Your task to perform on an android device: turn notification dots on Image 0: 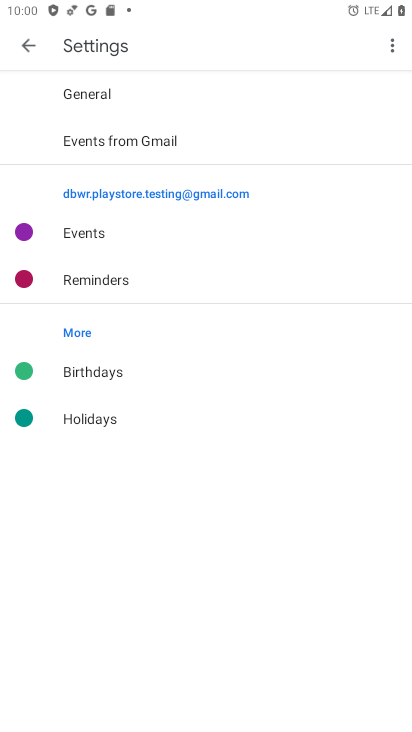
Step 0: drag from (186, 647) to (176, 533)
Your task to perform on an android device: turn notification dots on Image 1: 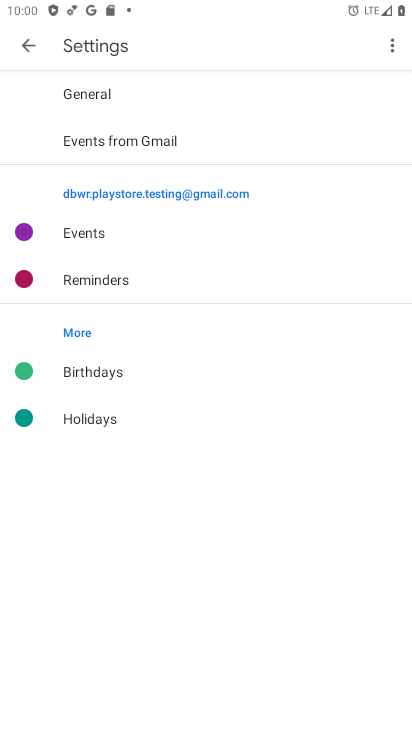
Step 1: press home button
Your task to perform on an android device: turn notification dots on Image 2: 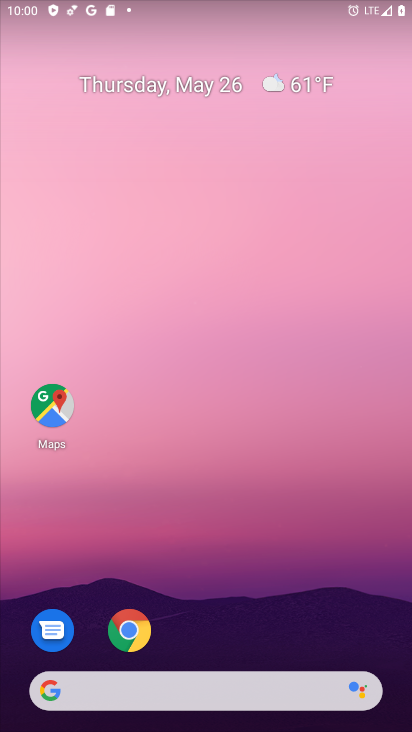
Step 2: drag from (209, 651) to (191, 79)
Your task to perform on an android device: turn notification dots on Image 3: 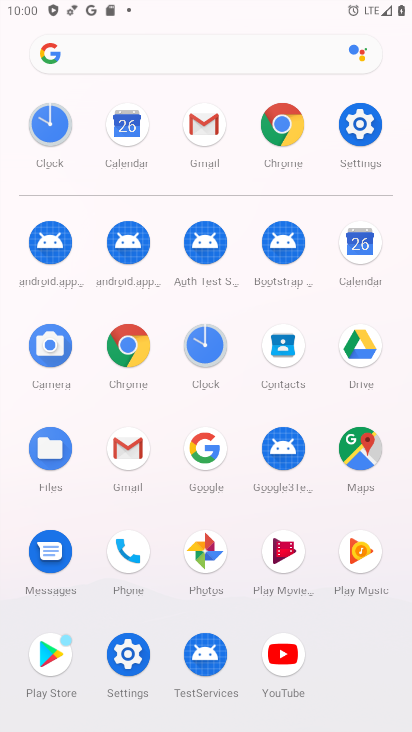
Step 3: click (360, 113)
Your task to perform on an android device: turn notification dots on Image 4: 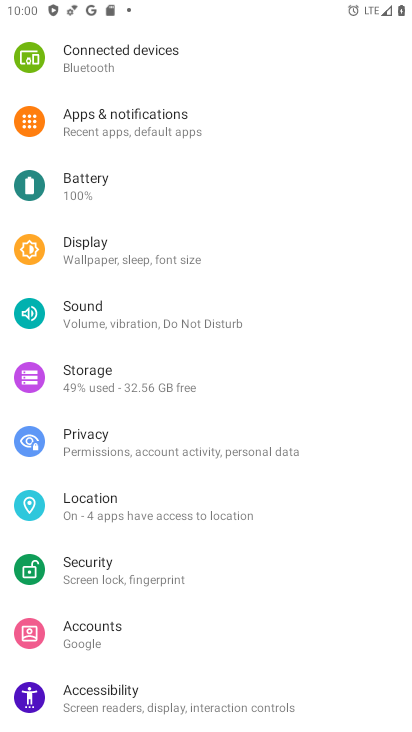
Step 4: click (217, 130)
Your task to perform on an android device: turn notification dots on Image 5: 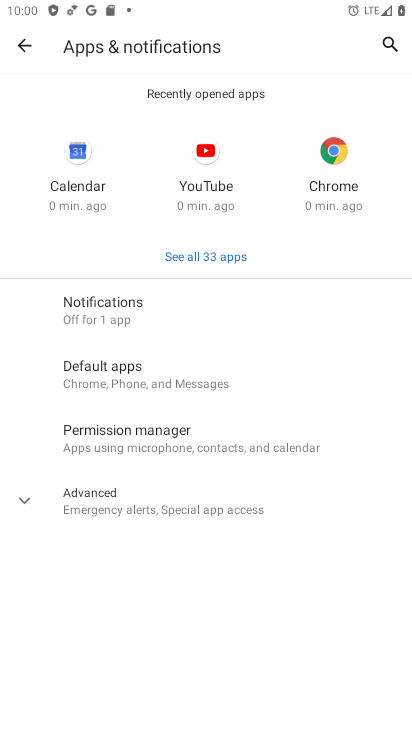
Step 5: click (130, 293)
Your task to perform on an android device: turn notification dots on Image 6: 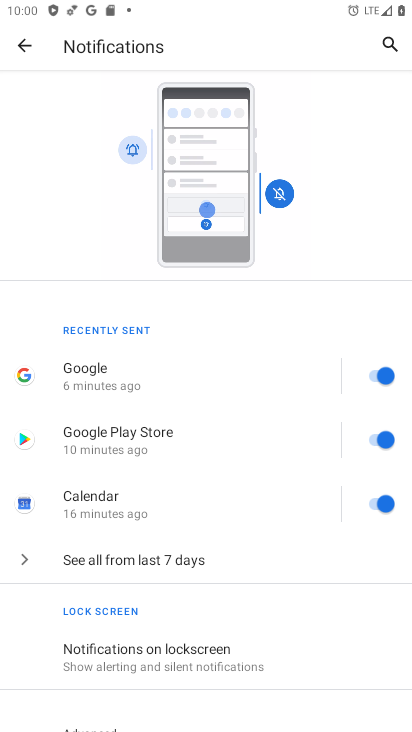
Step 6: drag from (116, 677) to (92, 467)
Your task to perform on an android device: turn notification dots on Image 7: 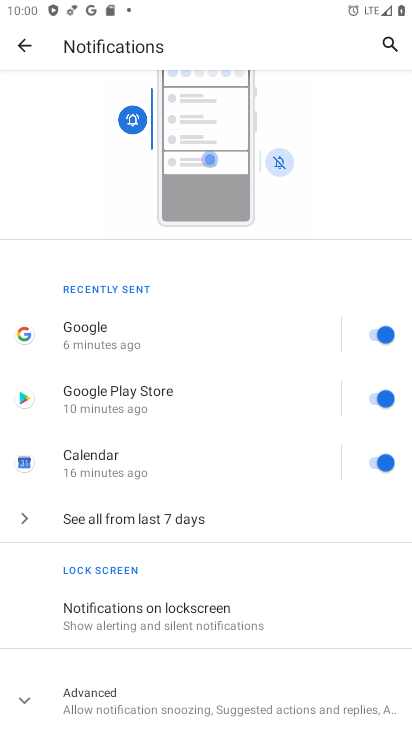
Step 7: click (128, 682)
Your task to perform on an android device: turn notification dots on Image 8: 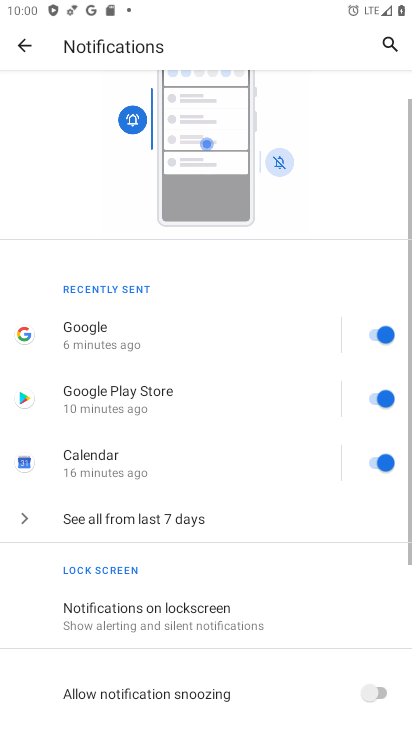
Step 8: task complete